Your task to perform on an android device: stop showing notifications on the lock screen Image 0: 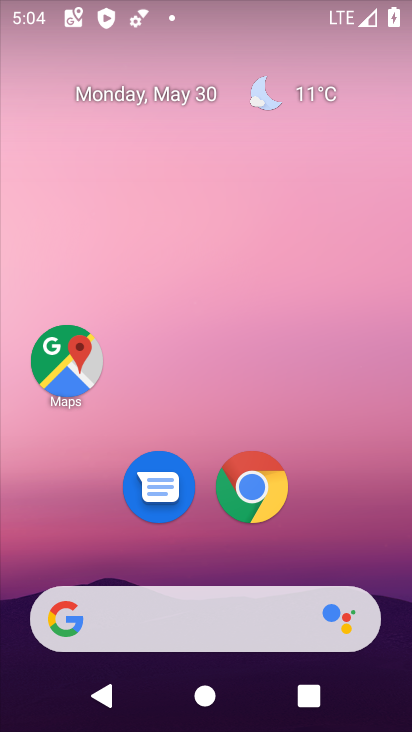
Step 0: drag from (398, 621) to (315, 121)
Your task to perform on an android device: stop showing notifications on the lock screen Image 1: 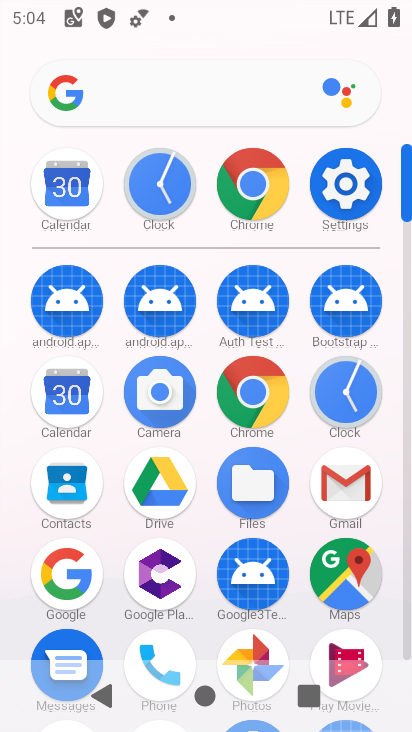
Step 1: click (409, 629)
Your task to perform on an android device: stop showing notifications on the lock screen Image 2: 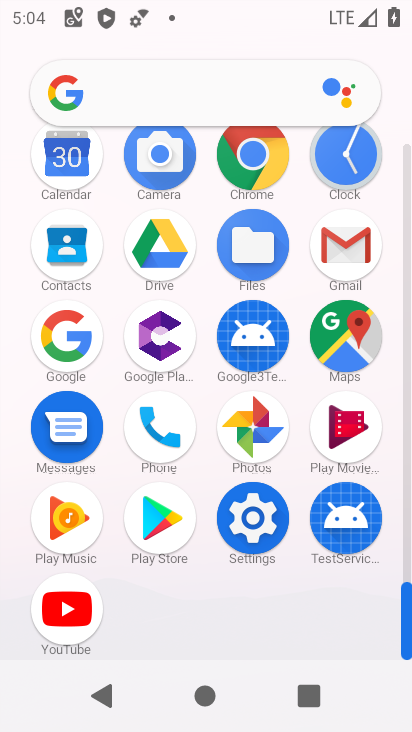
Step 2: click (258, 515)
Your task to perform on an android device: stop showing notifications on the lock screen Image 3: 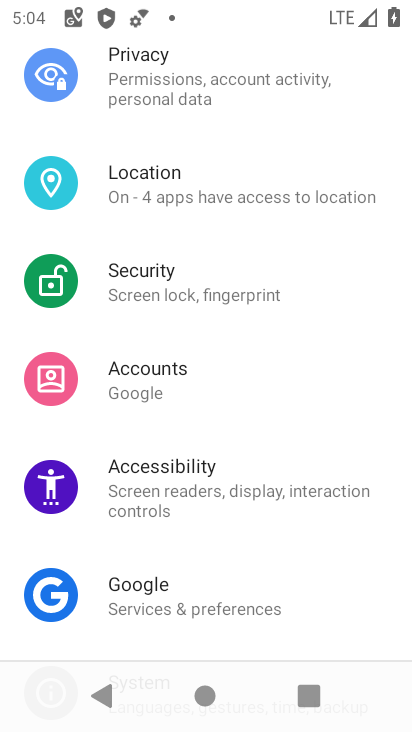
Step 3: drag from (296, 270) to (317, 499)
Your task to perform on an android device: stop showing notifications on the lock screen Image 4: 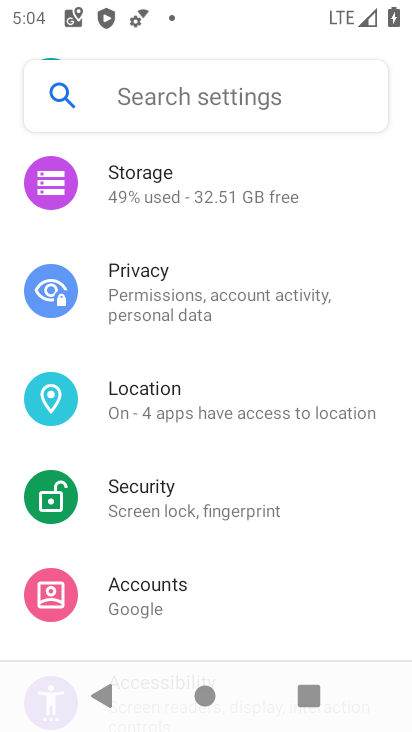
Step 4: drag from (354, 201) to (342, 419)
Your task to perform on an android device: stop showing notifications on the lock screen Image 5: 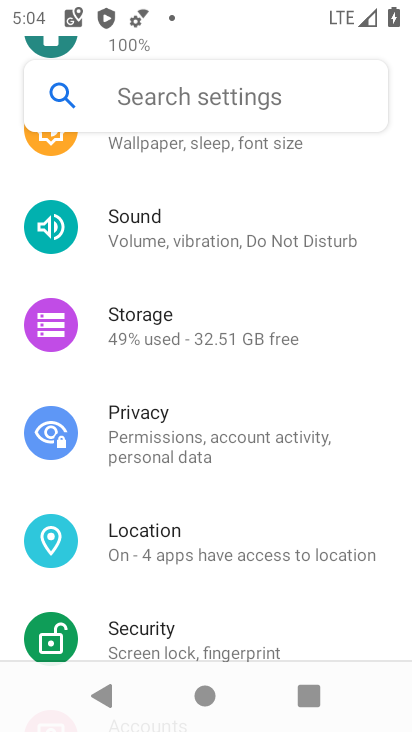
Step 5: drag from (356, 219) to (344, 423)
Your task to perform on an android device: stop showing notifications on the lock screen Image 6: 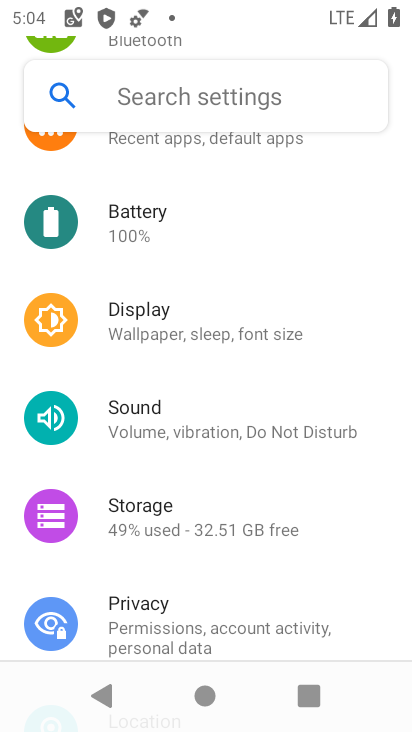
Step 6: drag from (342, 238) to (359, 553)
Your task to perform on an android device: stop showing notifications on the lock screen Image 7: 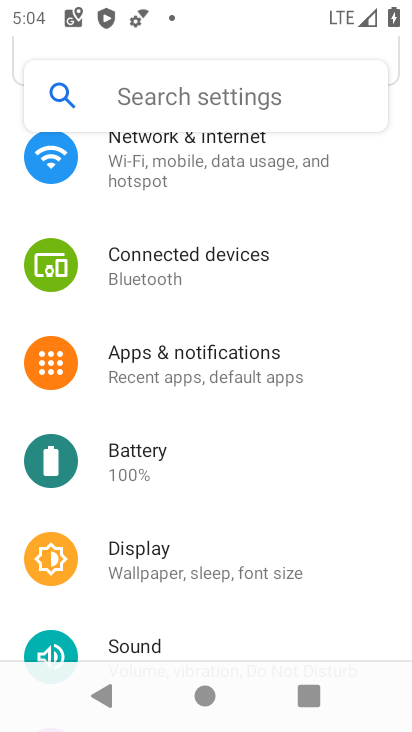
Step 7: click (173, 350)
Your task to perform on an android device: stop showing notifications on the lock screen Image 8: 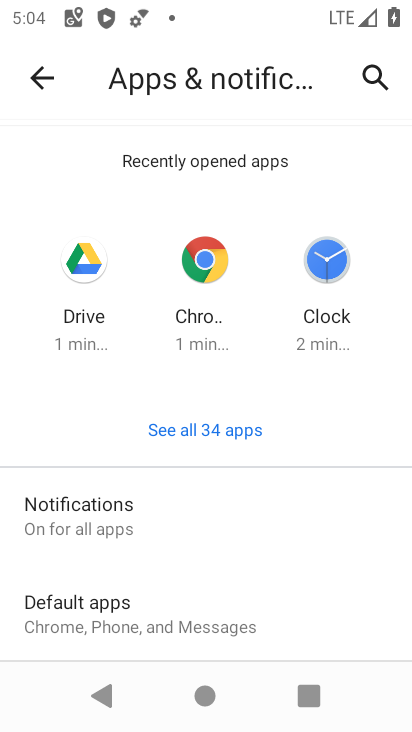
Step 8: click (110, 517)
Your task to perform on an android device: stop showing notifications on the lock screen Image 9: 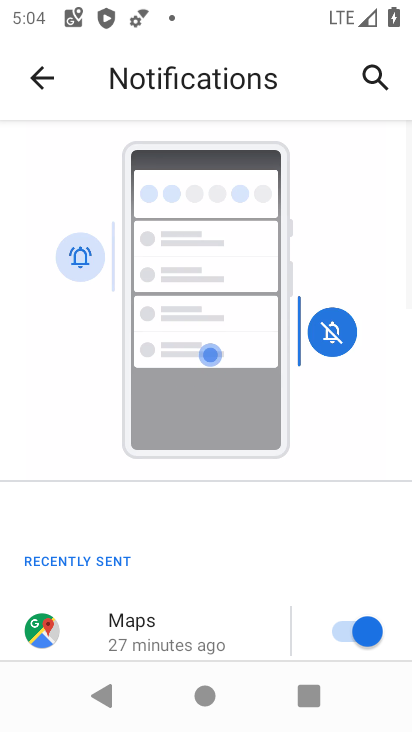
Step 9: drag from (269, 624) to (203, 164)
Your task to perform on an android device: stop showing notifications on the lock screen Image 10: 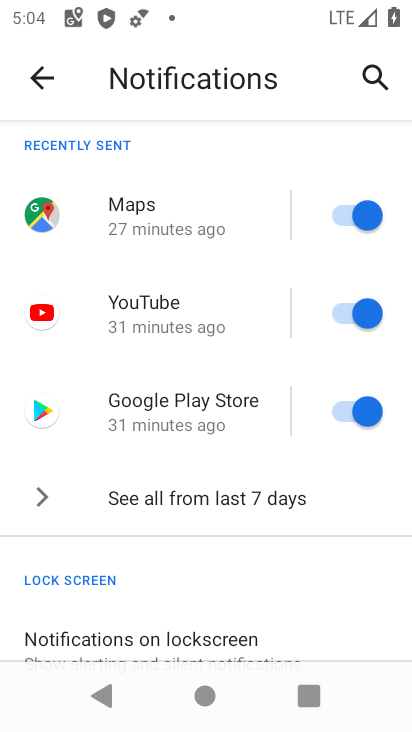
Step 10: drag from (273, 584) to (272, 184)
Your task to perform on an android device: stop showing notifications on the lock screen Image 11: 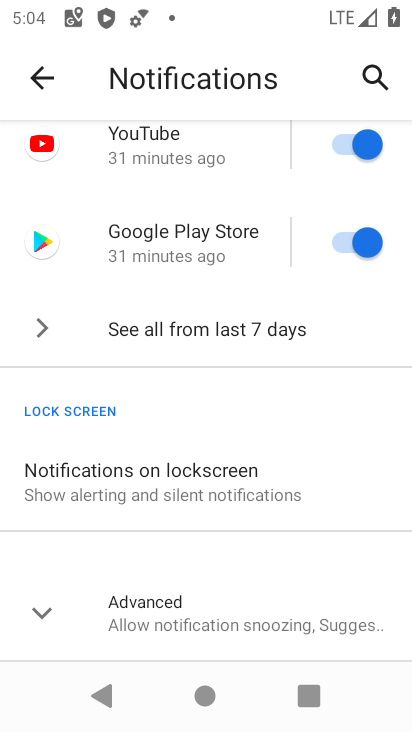
Step 11: click (109, 463)
Your task to perform on an android device: stop showing notifications on the lock screen Image 12: 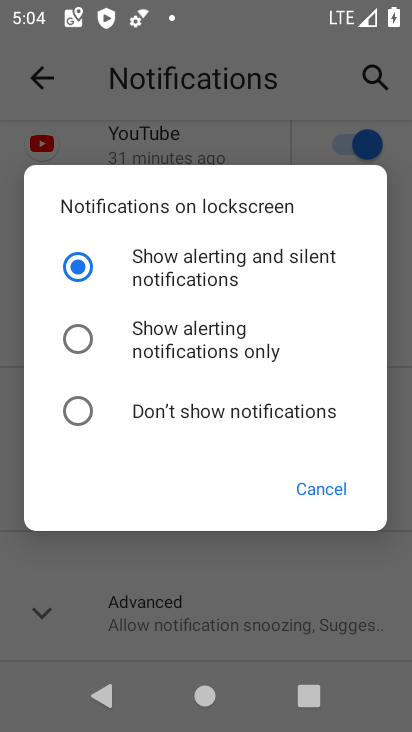
Step 12: click (79, 416)
Your task to perform on an android device: stop showing notifications on the lock screen Image 13: 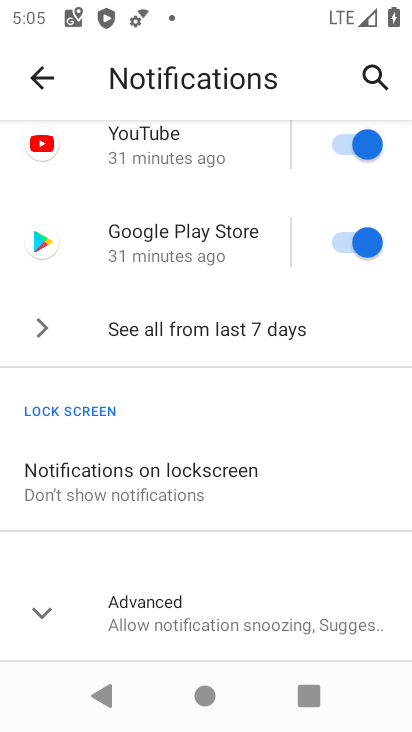
Step 13: task complete